Your task to perform on an android device: add a contact Image 0: 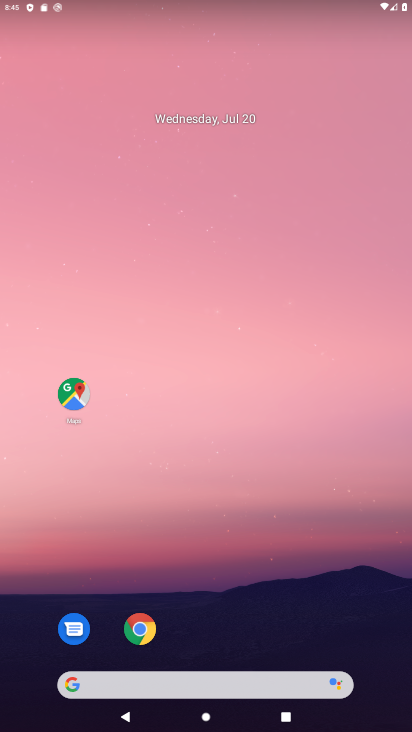
Step 0: drag from (385, 656) to (341, 194)
Your task to perform on an android device: add a contact Image 1: 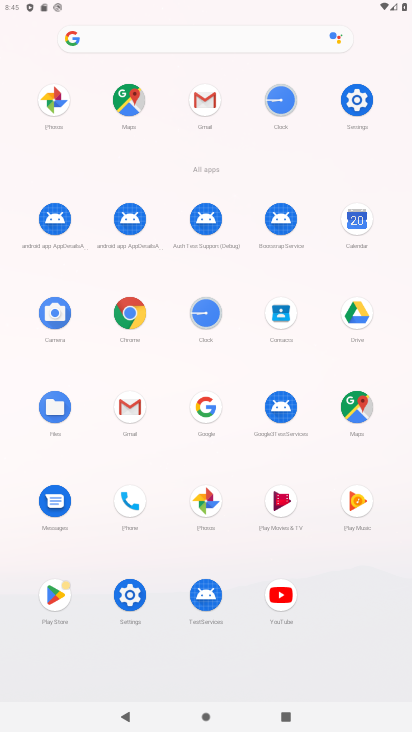
Step 1: click (281, 312)
Your task to perform on an android device: add a contact Image 2: 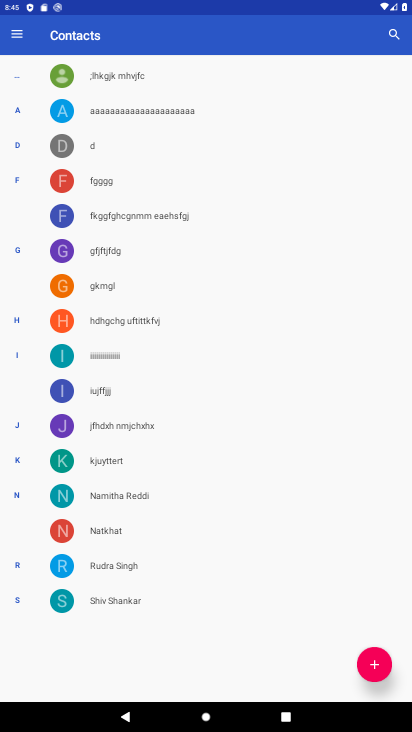
Step 2: click (374, 662)
Your task to perform on an android device: add a contact Image 3: 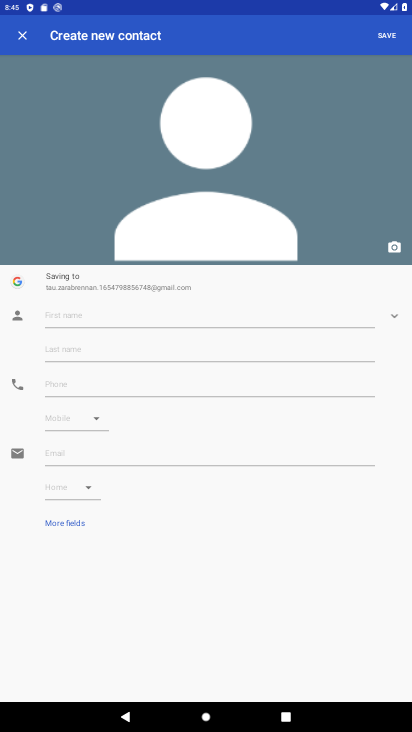
Step 3: click (68, 315)
Your task to perform on an android device: add a contact Image 4: 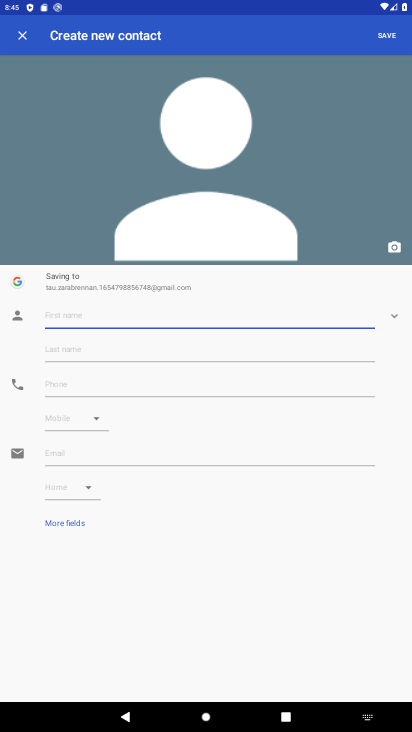
Step 4: type "rseejaffgjgoop"
Your task to perform on an android device: add a contact Image 5: 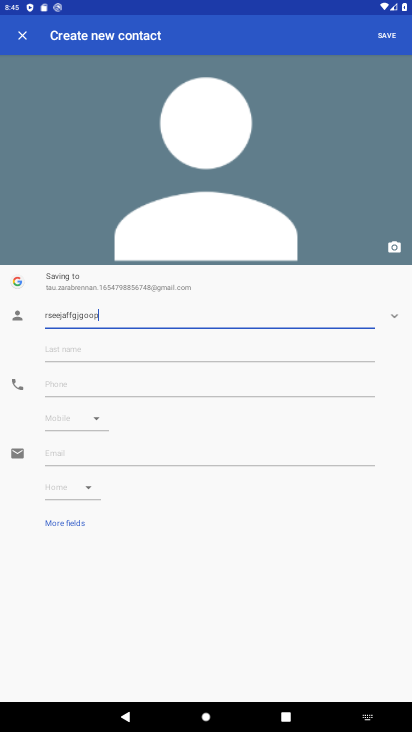
Step 5: click (73, 389)
Your task to perform on an android device: add a contact Image 6: 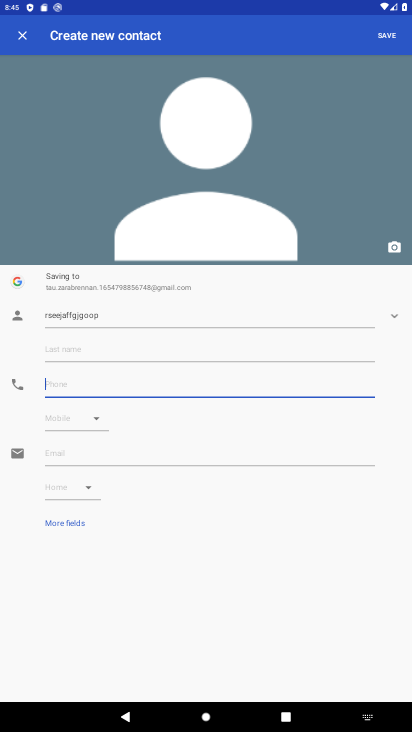
Step 6: type "094853721830"
Your task to perform on an android device: add a contact Image 7: 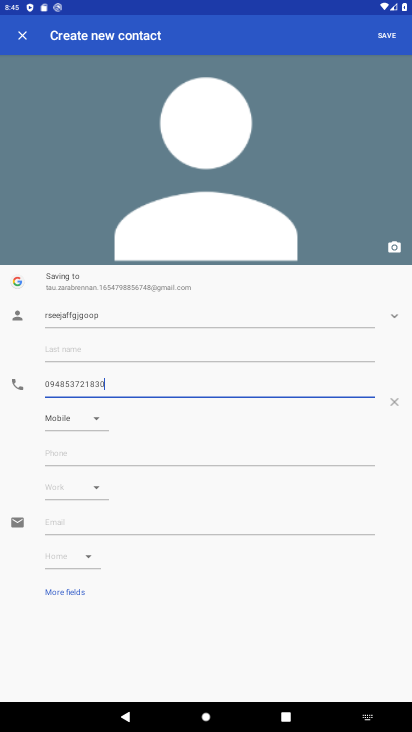
Step 7: click (96, 417)
Your task to perform on an android device: add a contact Image 8: 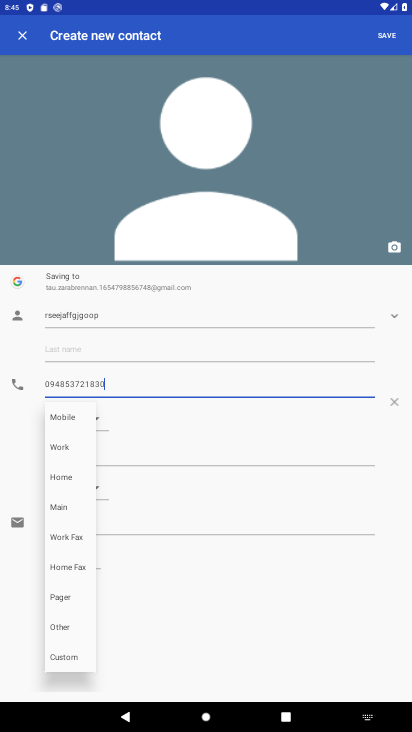
Step 8: click (58, 442)
Your task to perform on an android device: add a contact Image 9: 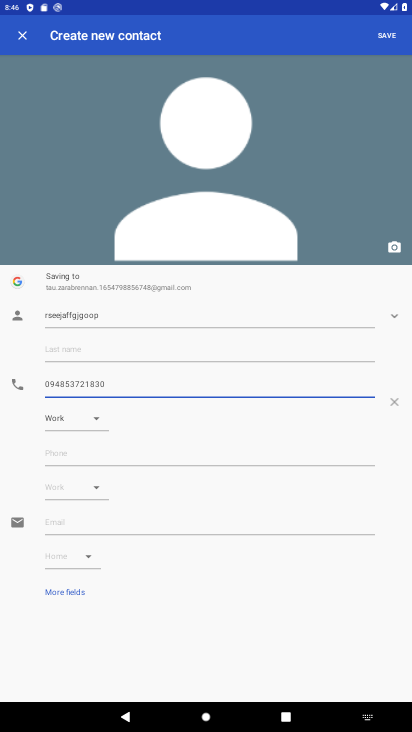
Step 9: click (383, 32)
Your task to perform on an android device: add a contact Image 10: 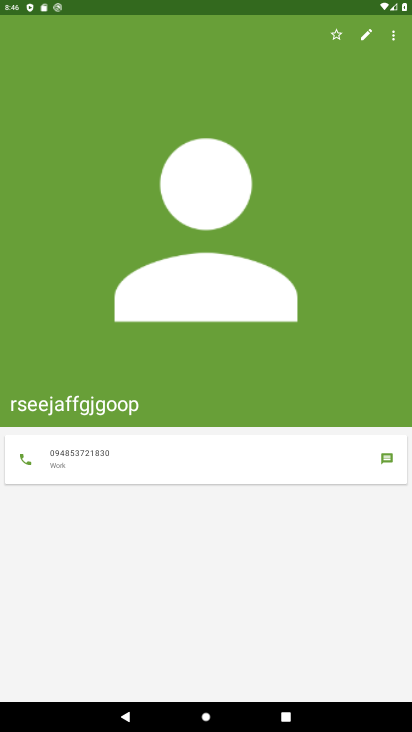
Step 10: task complete